Your task to perform on an android device: change the clock display to show seconds Image 0: 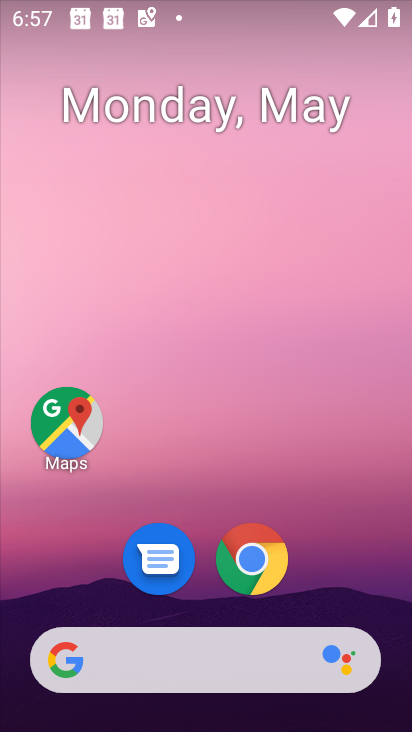
Step 0: drag from (392, 643) to (345, 34)
Your task to perform on an android device: change the clock display to show seconds Image 1: 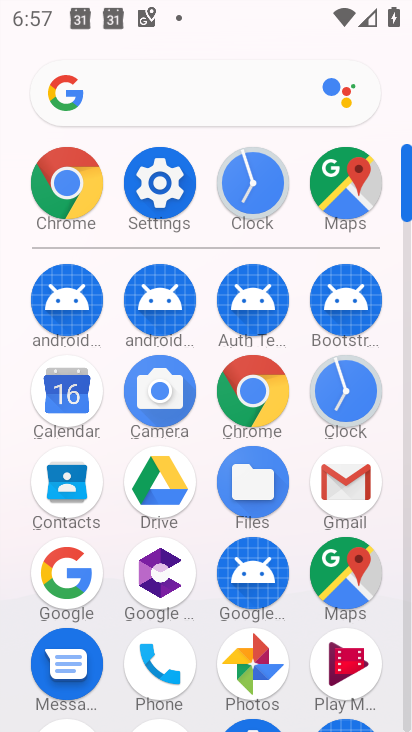
Step 1: click (235, 193)
Your task to perform on an android device: change the clock display to show seconds Image 2: 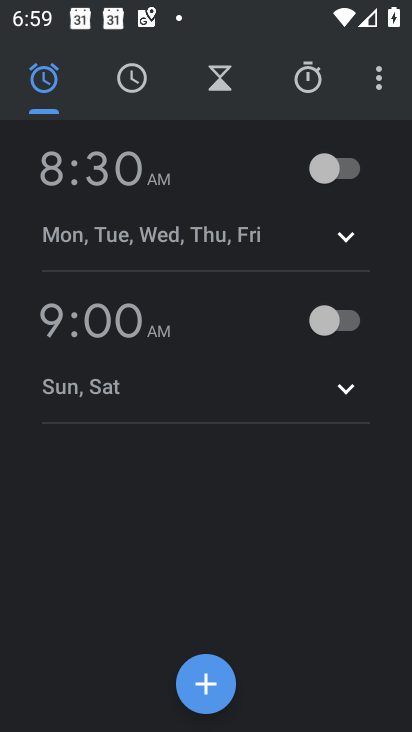
Step 2: click (380, 76)
Your task to perform on an android device: change the clock display to show seconds Image 3: 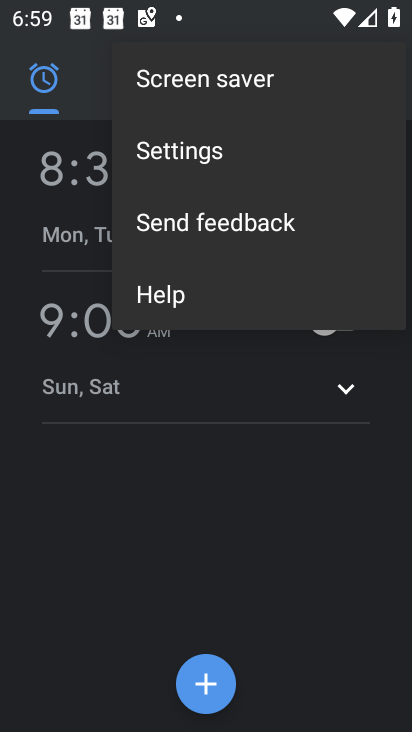
Step 3: click (267, 175)
Your task to perform on an android device: change the clock display to show seconds Image 4: 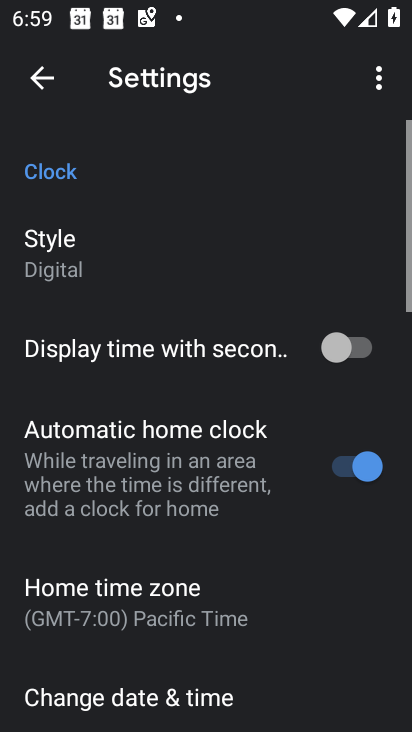
Step 4: click (315, 356)
Your task to perform on an android device: change the clock display to show seconds Image 5: 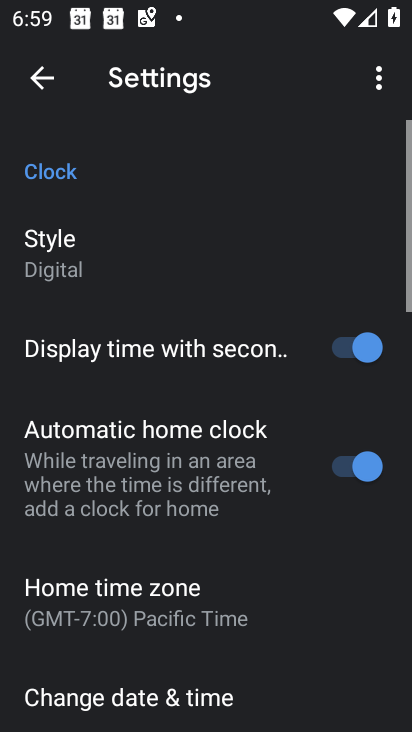
Step 5: task complete